Your task to perform on an android device: install app "Life360: Find Family & Friends" Image 0: 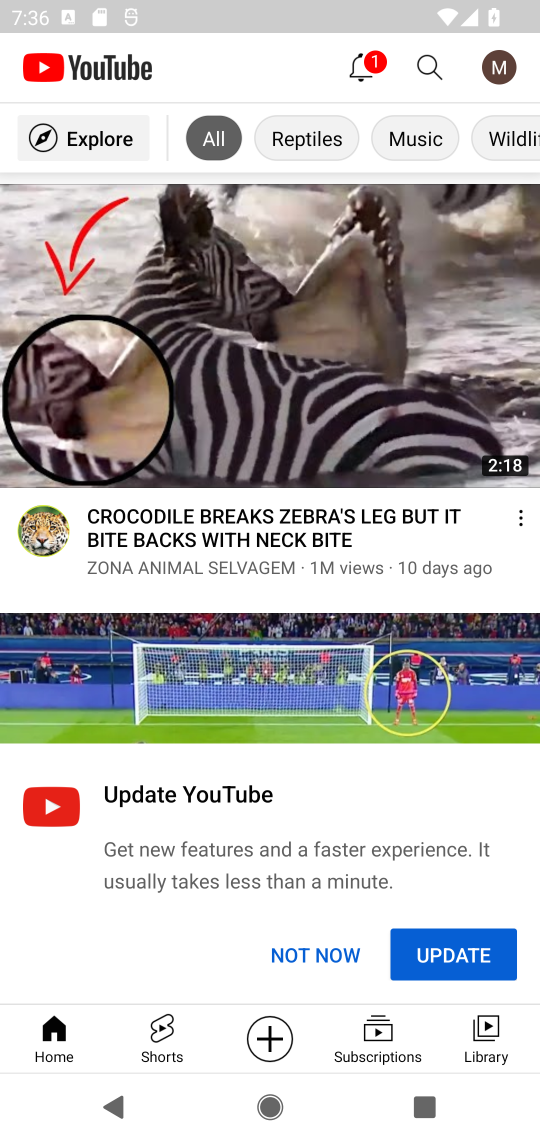
Step 0: press home button
Your task to perform on an android device: install app "Life360: Find Family & Friends" Image 1: 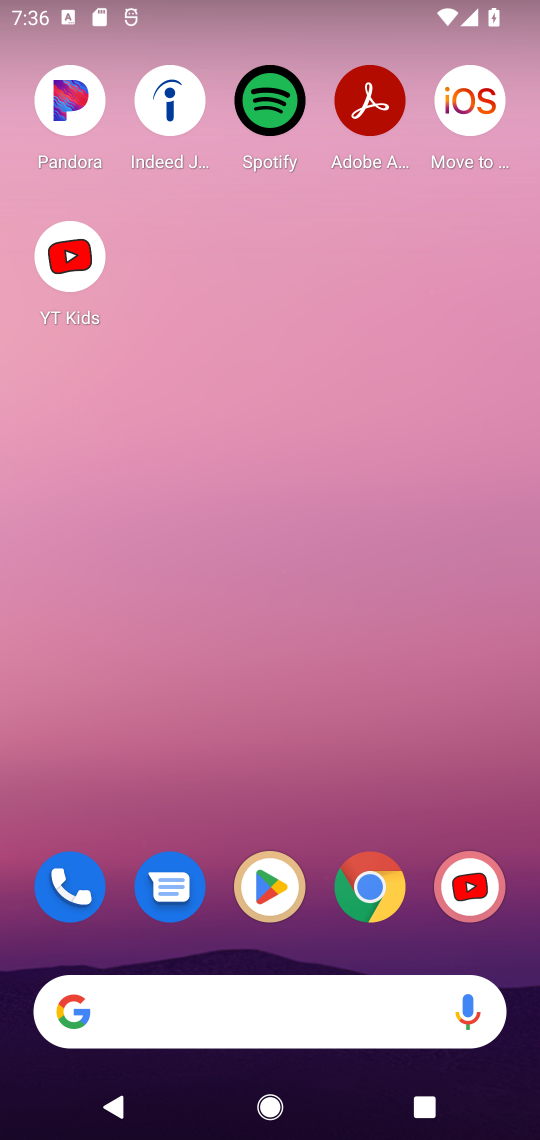
Step 1: drag from (301, 952) to (304, 81)
Your task to perform on an android device: install app "Life360: Find Family & Friends" Image 2: 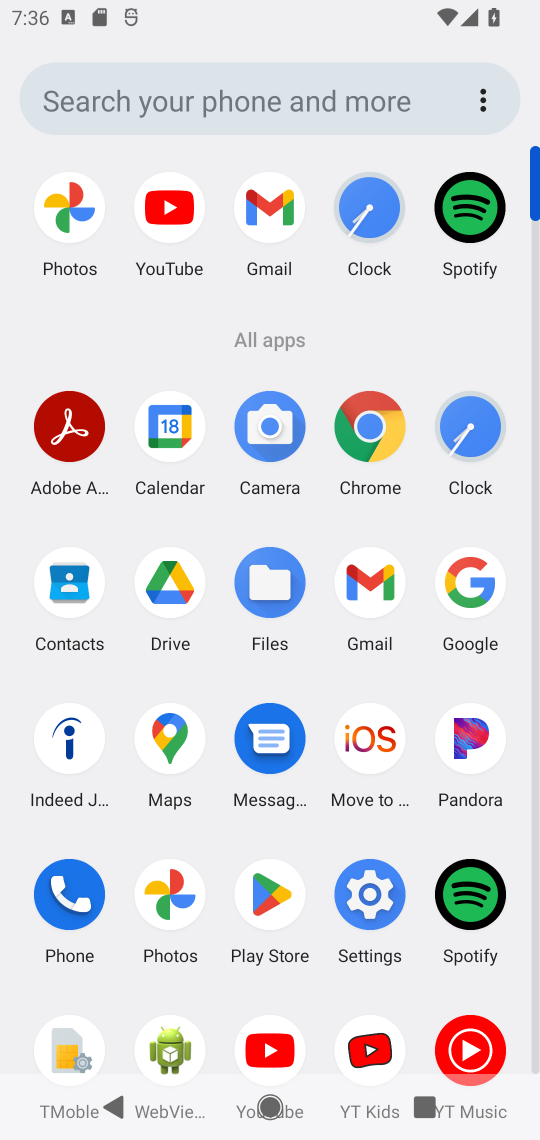
Step 2: click (271, 905)
Your task to perform on an android device: install app "Life360: Find Family & Friends" Image 3: 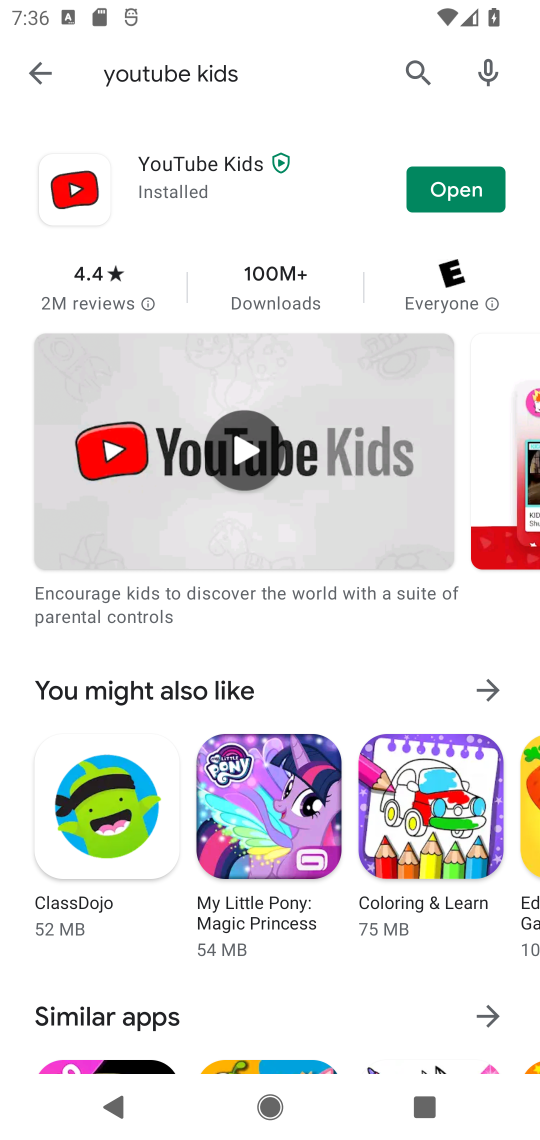
Step 3: click (411, 71)
Your task to perform on an android device: install app "Life360: Find Family & Friends" Image 4: 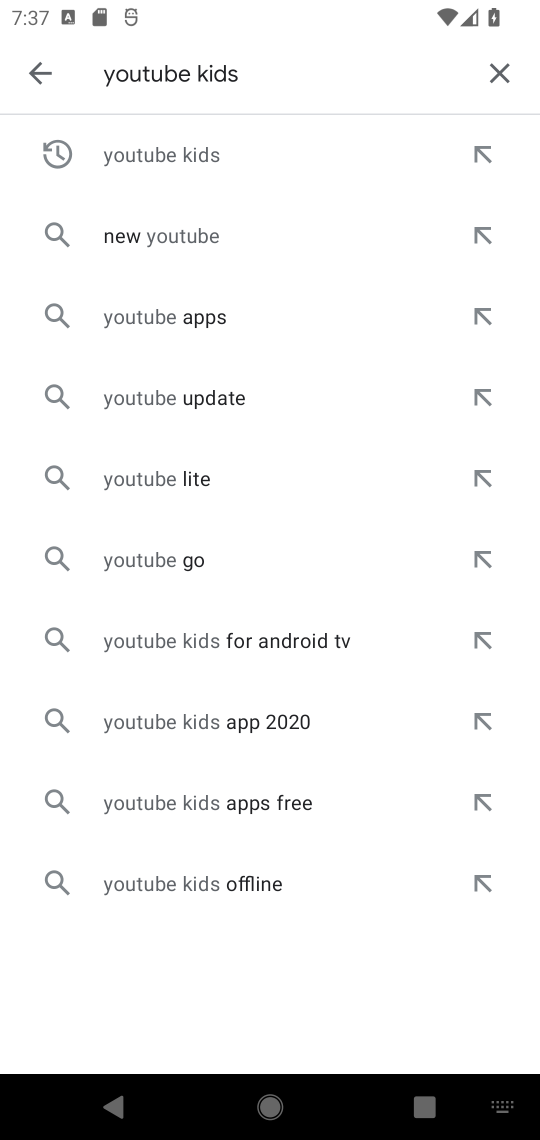
Step 4: click (499, 67)
Your task to perform on an android device: install app "Life360: Find Family & Friends" Image 5: 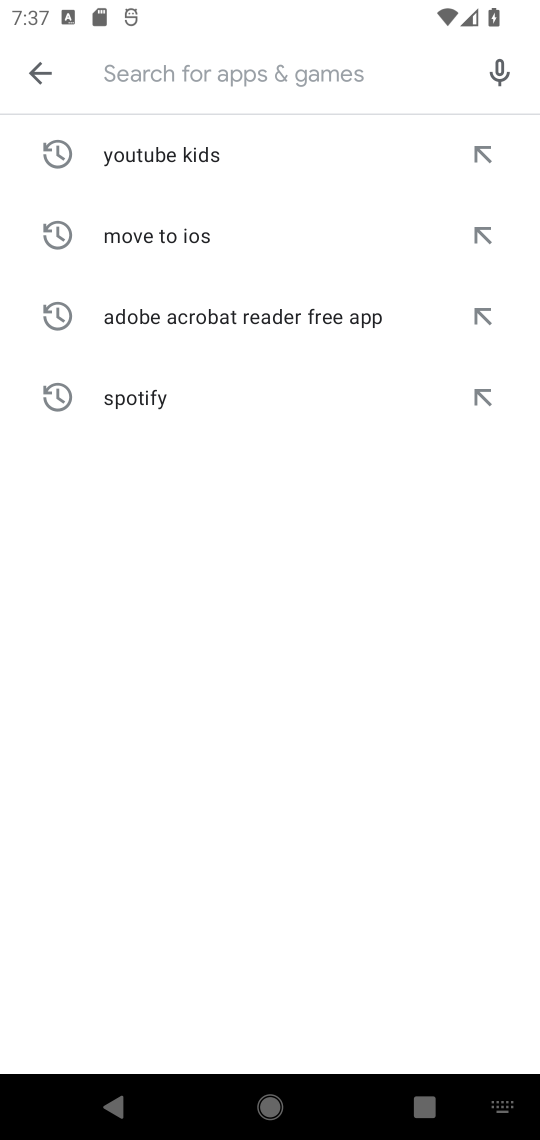
Step 5: type "Life360: Find Family & Friends"
Your task to perform on an android device: install app "Life360: Find Family & Friends" Image 6: 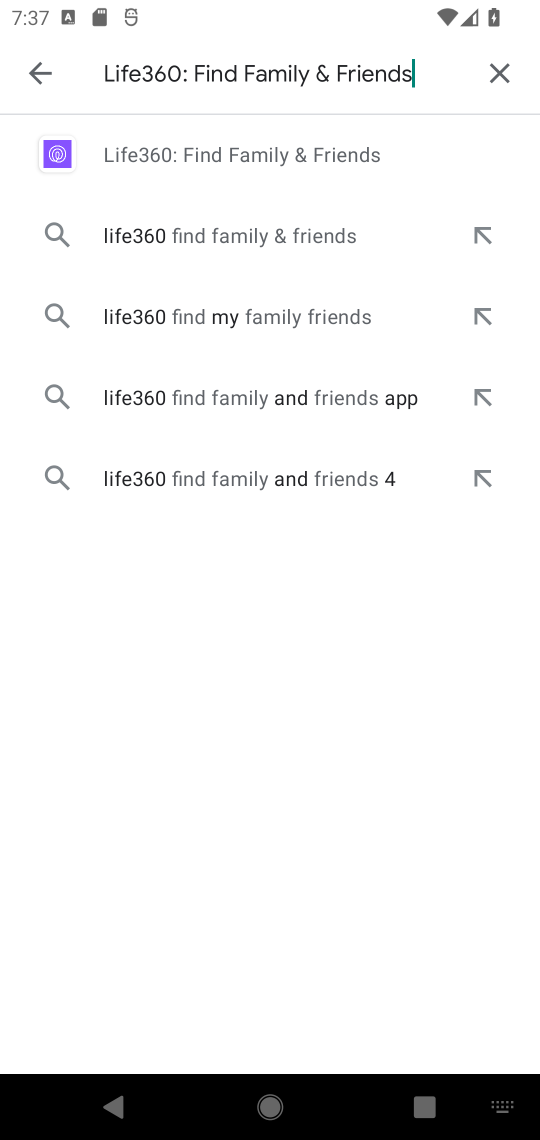
Step 6: click (296, 146)
Your task to perform on an android device: install app "Life360: Find Family & Friends" Image 7: 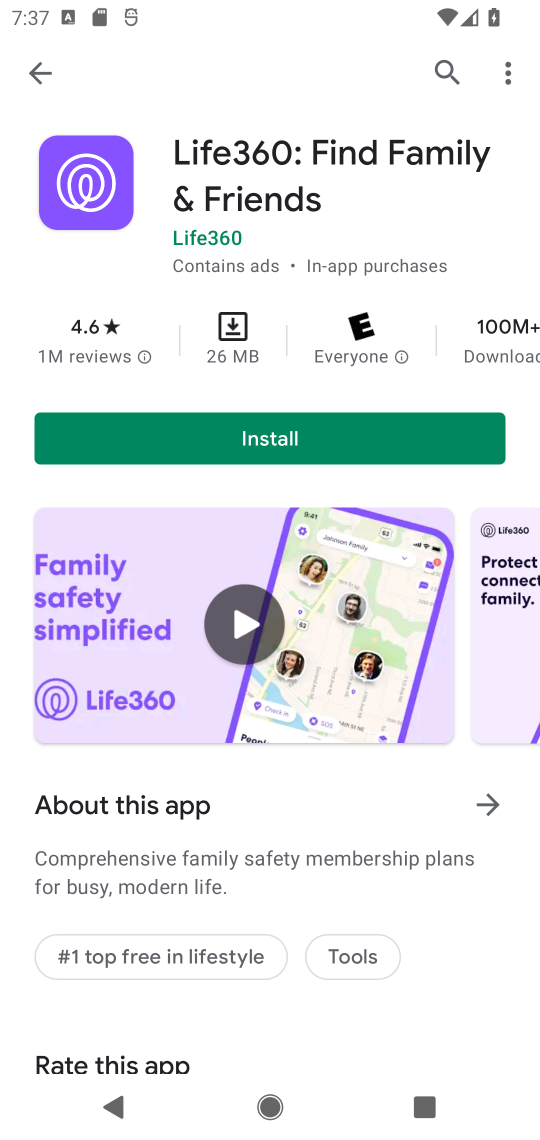
Step 7: click (262, 446)
Your task to perform on an android device: install app "Life360: Find Family & Friends" Image 8: 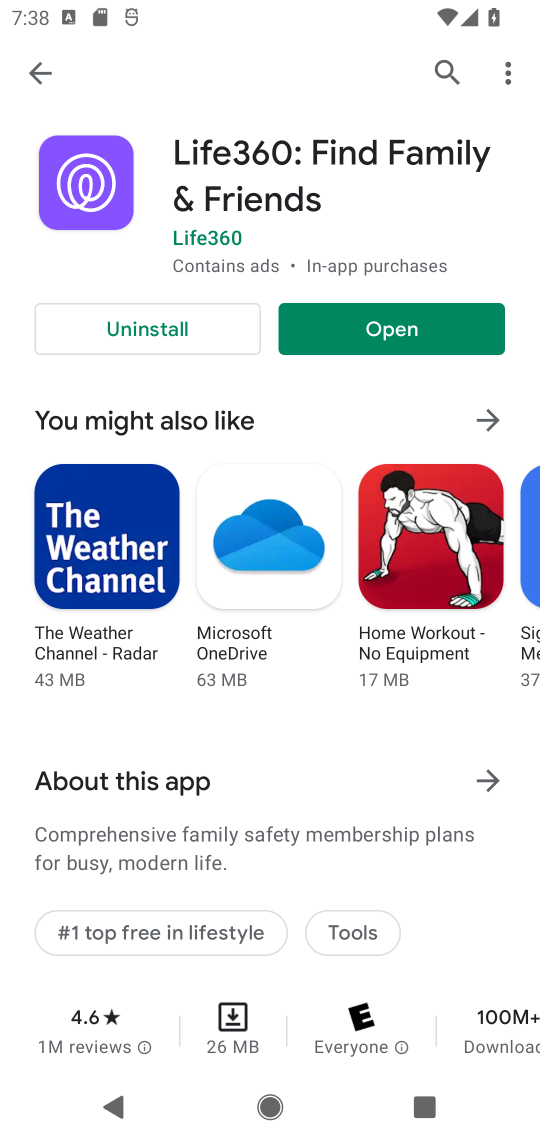
Step 8: task complete